Your task to perform on an android device: allow cookies in the chrome app Image 0: 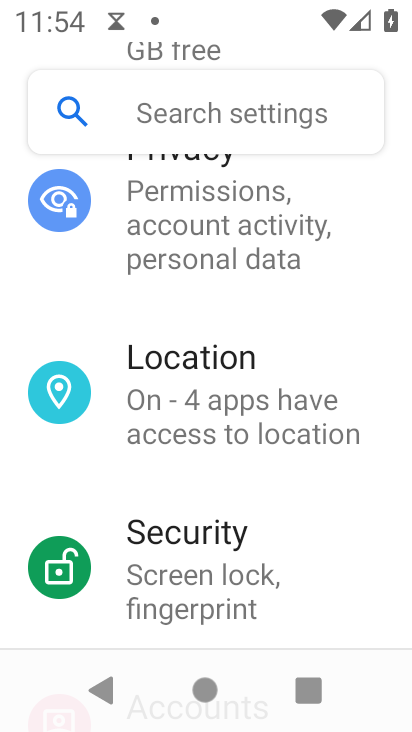
Step 0: press home button
Your task to perform on an android device: allow cookies in the chrome app Image 1: 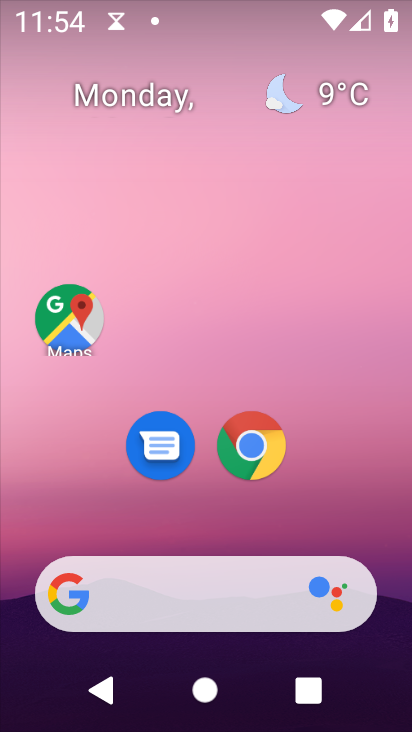
Step 1: drag from (373, 545) to (294, 0)
Your task to perform on an android device: allow cookies in the chrome app Image 2: 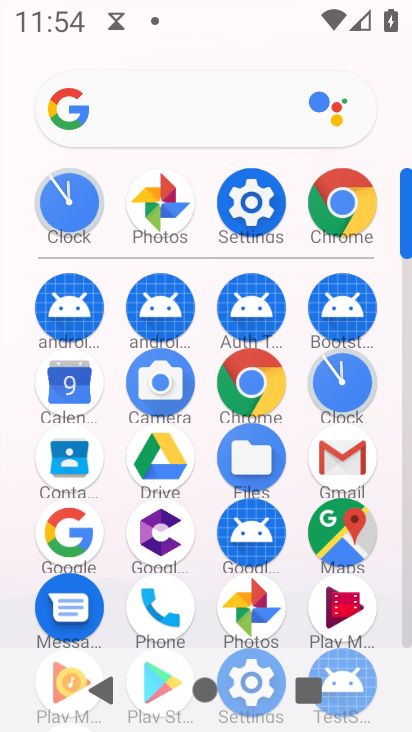
Step 2: click (254, 394)
Your task to perform on an android device: allow cookies in the chrome app Image 3: 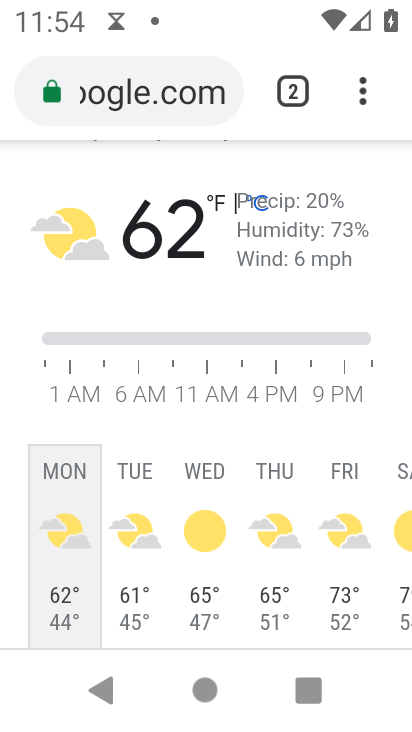
Step 3: drag from (362, 77) to (184, 490)
Your task to perform on an android device: allow cookies in the chrome app Image 4: 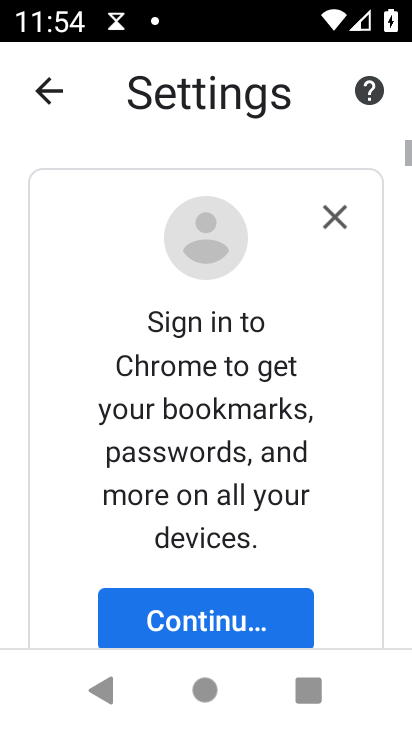
Step 4: drag from (245, 576) to (213, 100)
Your task to perform on an android device: allow cookies in the chrome app Image 5: 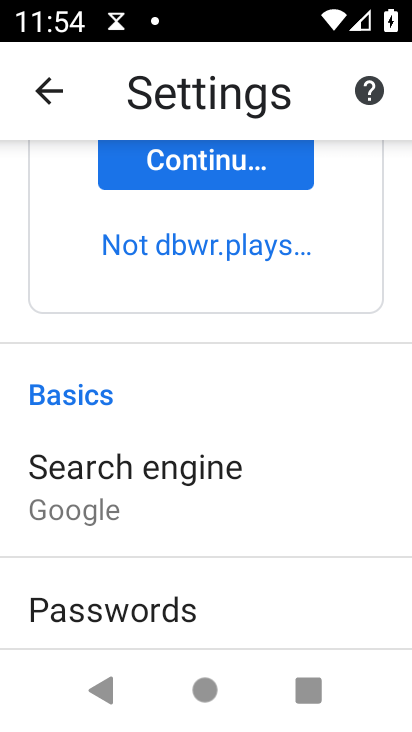
Step 5: drag from (186, 609) to (234, 35)
Your task to perform on an android device: allow cookies in the chrome app Image 6: 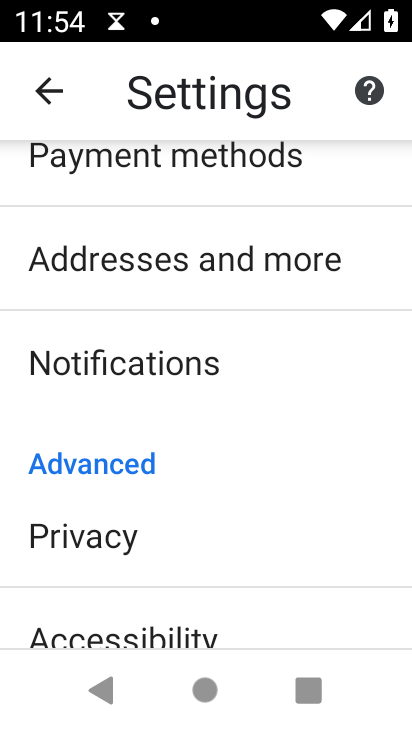
Step 6: drag from (172, 541) to (226, 82)
Your task to perform on an android device: allow cookies in the chrome app Image 7: 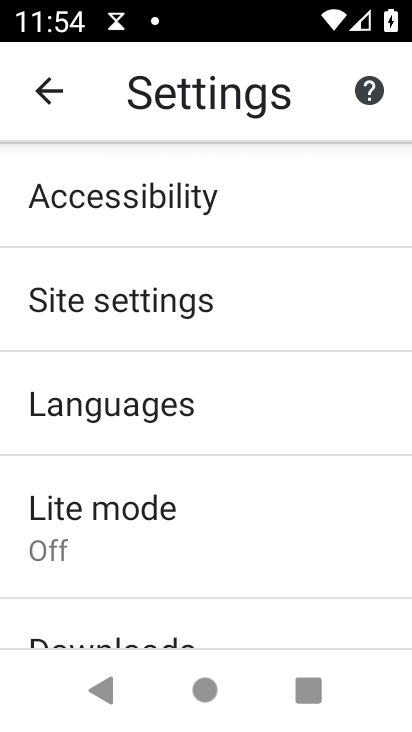
Step 7: click (178, 330)
Your task to perform on an android device: allow cookies in the chrome app Image 8: 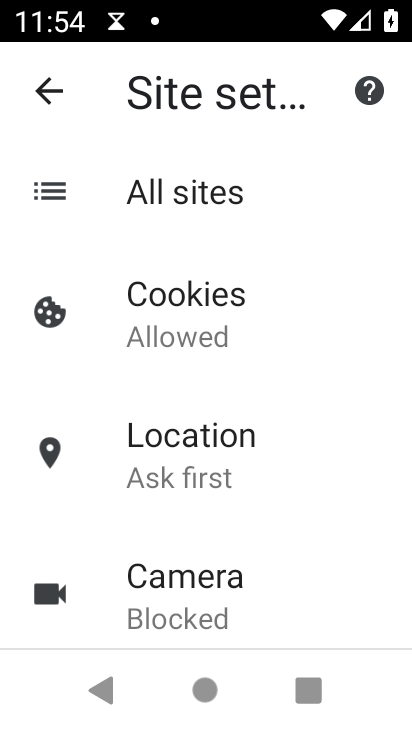
Step 8: click (170, 321)
Your task to perform on an android device: allow cookies in the chrome app Image 9: 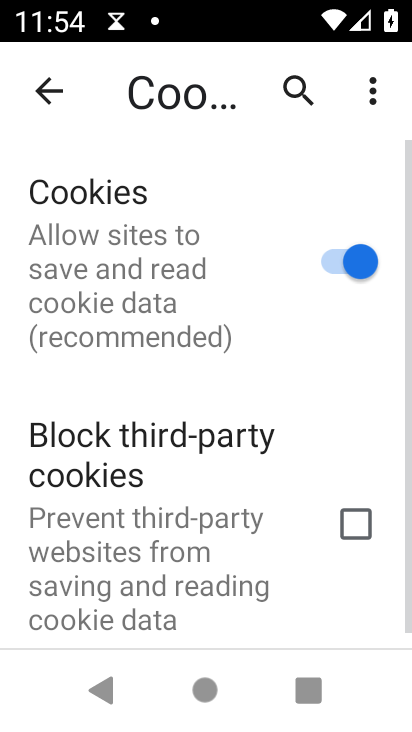
Step 9: task complete